Your task to perform on an android device: Go to location settings Image 0: 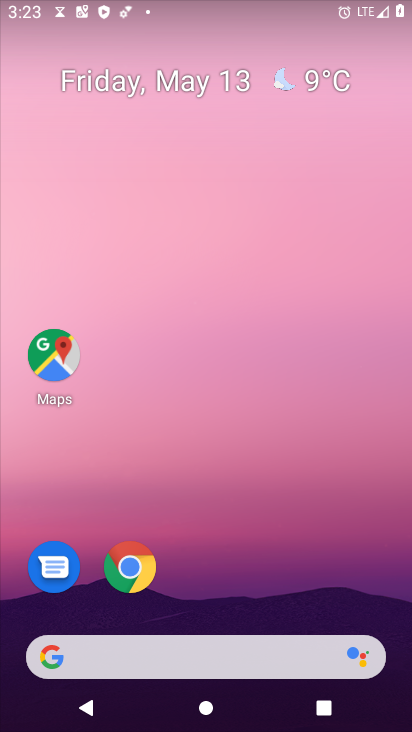
Step 0: drag from (343, 581) to (313, 11)
Your task to perform on an android device: Go to location settings Image 1: 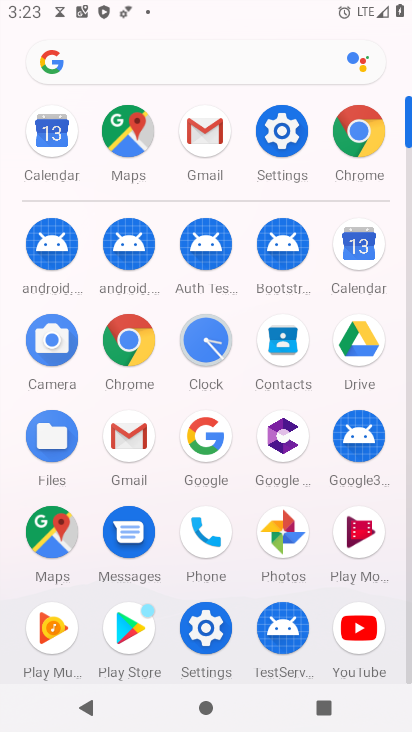
Step 1: click (277, 138)
Your task to perform on an android device: Go to location settings Image 2: 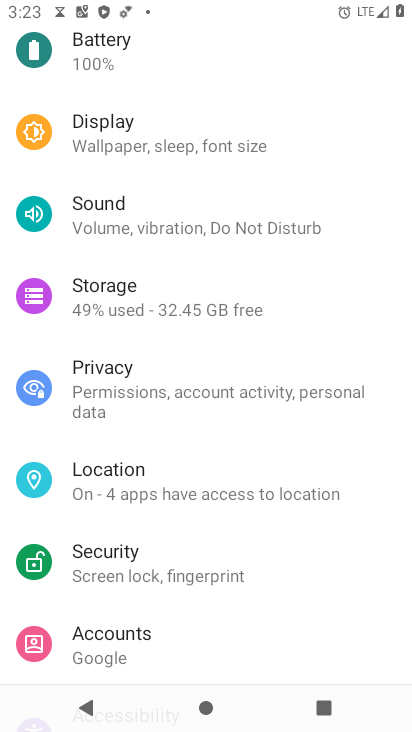
Step 2: click (122, 477)
Your task to perform on an android device: Go to location settings Image 3: 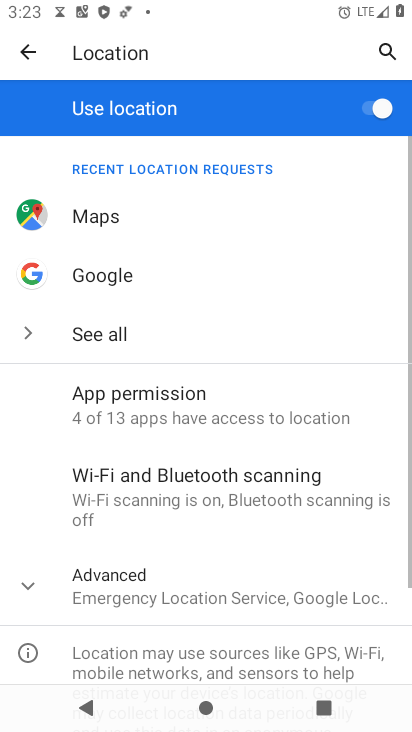
Step 3: task complete